Your task to perform on an android device: allow cookies in the chrome app Image 0: 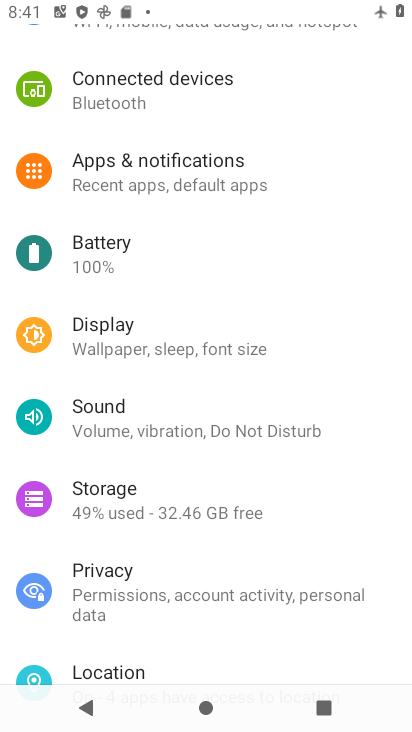
Step 0: task complete